Your task to perform on an android device: Open Youtube and go to the subscriptions tab Image 0: 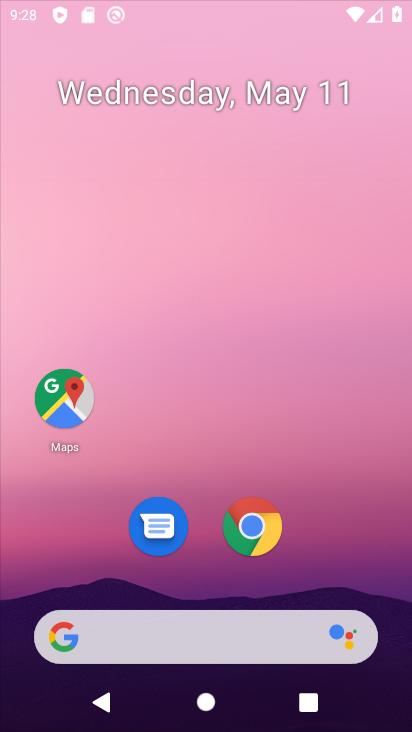
Step 0: click (264, 190)
Your task to perform on an android device: Open Youtube and go to the subscriptions tab Image 1: 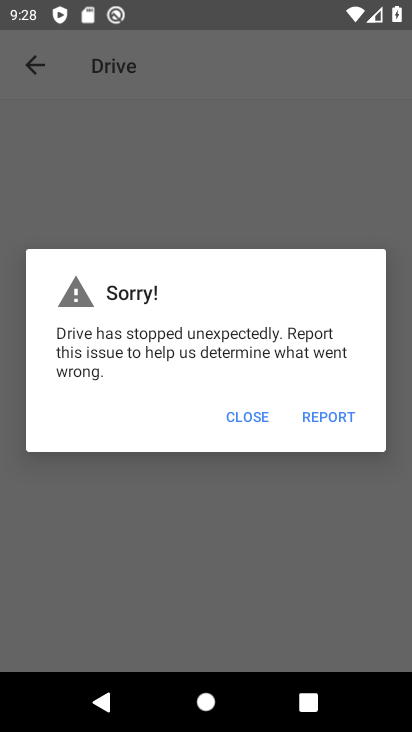
Step 1: press home button
Your task to perform on an android device: Open Youtube and go to the subscriptions tab Image 2: 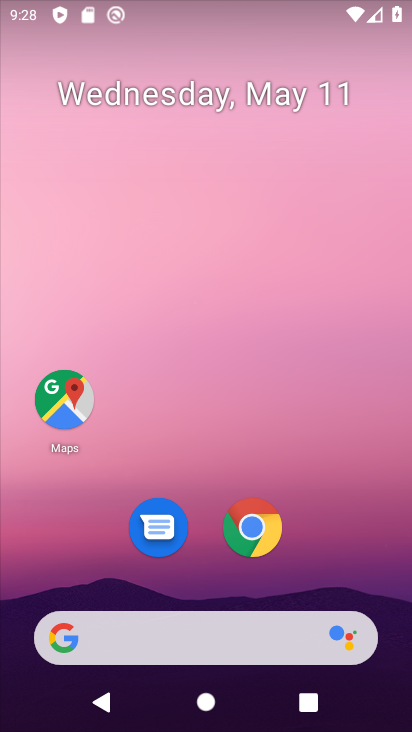
Step 2: drag from (182, 593) to (304, 112)
Your task to perform on an android device: Open Youtube and go to the subscriptions tab Image 3: 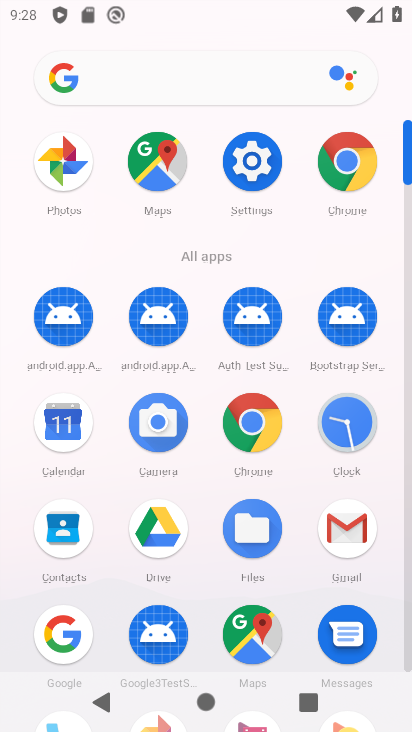
Step 3: drag from (250, 612) to (310, 321)
Your task to perform on an android device: Open Youtube and go to the subscriptions tab Image 4: 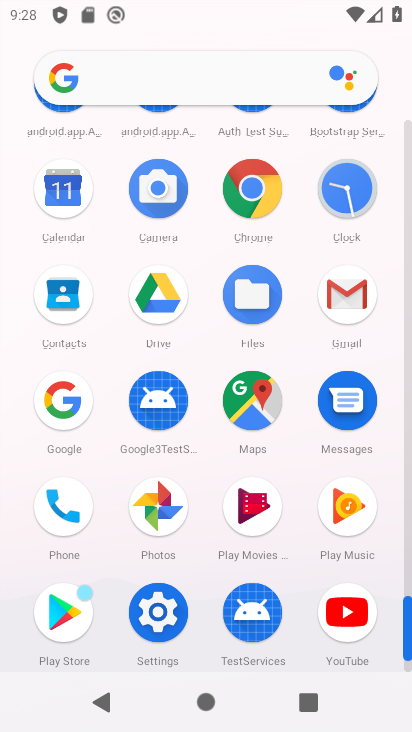
Step 4: click (342, 623)
Your task to perform on an android device: Open Youtube and go to the subscriptions tab Image 5: 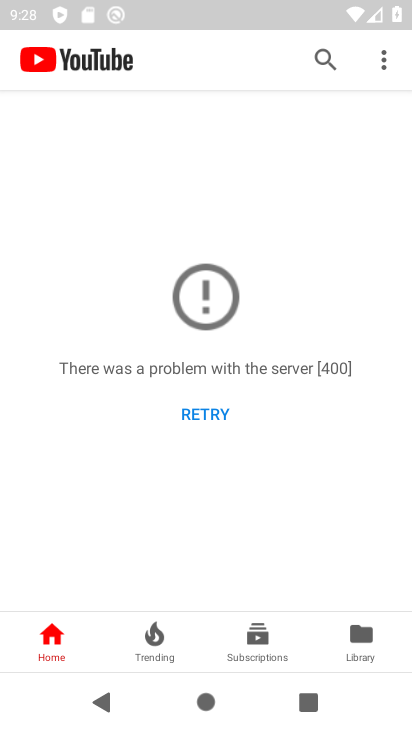
Step 5: click (368, 646)
Your task to perform on an android device: Open Youtube and go to the subscriptions tab Image 6: 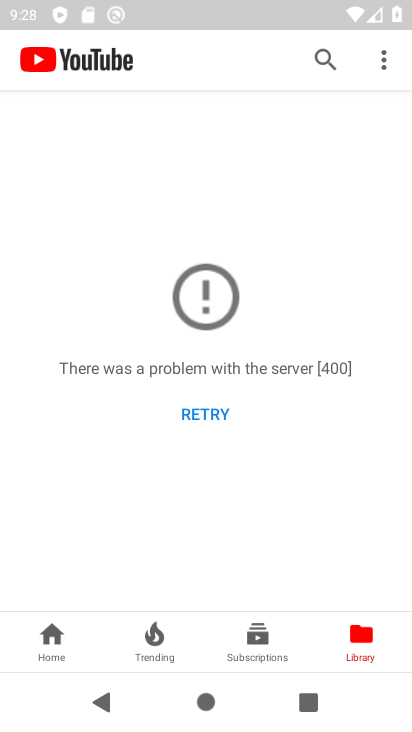
Step 6: click (363, 653)
Your task to perform on an android device: Open Youtube and go to the subscriptions tab Image 7: 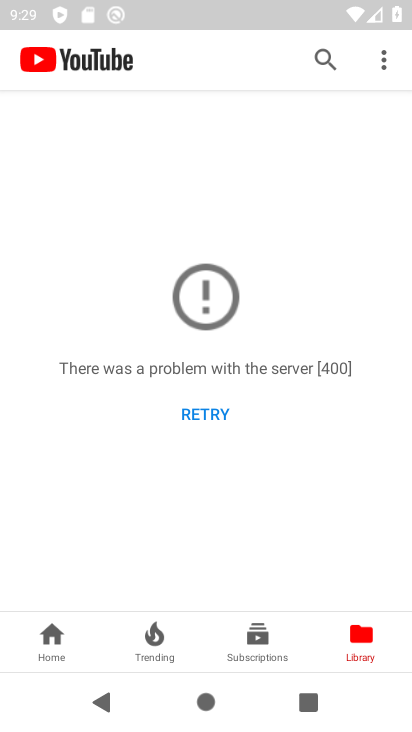
Step 7: task complete